Your task to perform on an android device: Open accessibility settings Image 0: 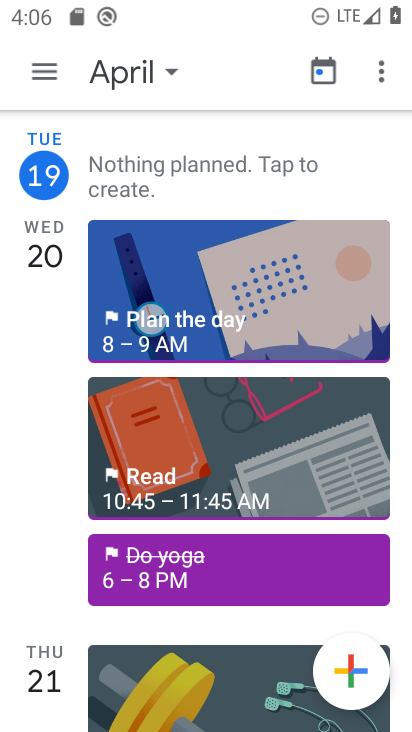
Step 0: press home button
Your task to perform on an android device: Open accessibility settings Image 1: 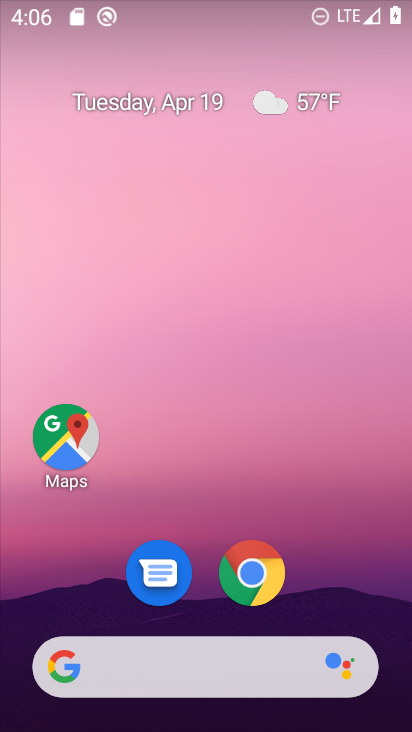
Step 1: drag from (351, 583) to (314, 4)
Your task to perform on an android device: Open accessibility settings Image 2: 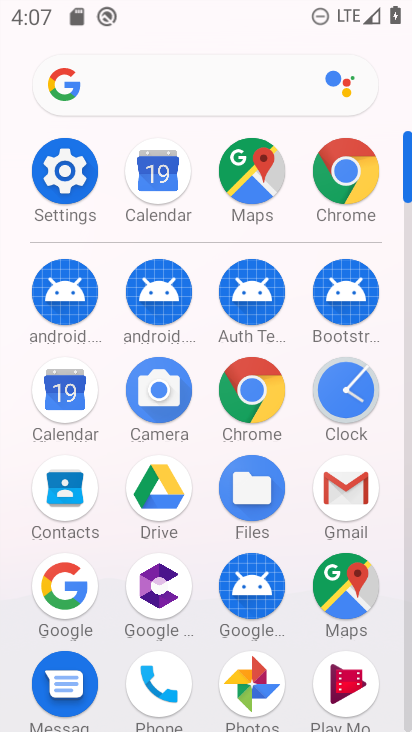
Step 2: click (68, 176)
Your task to perform on an android device: Open accessibility settings Image 3: 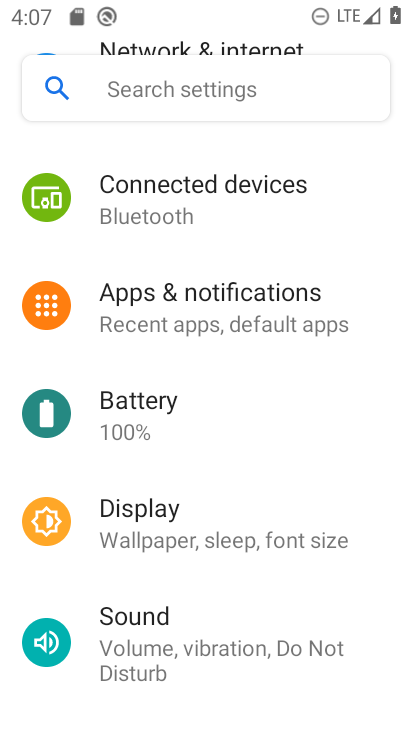
Step 3: drag from (375, 546) to (355, 203)
Your task to perform on an android device: Open accessibility settings Image 4: 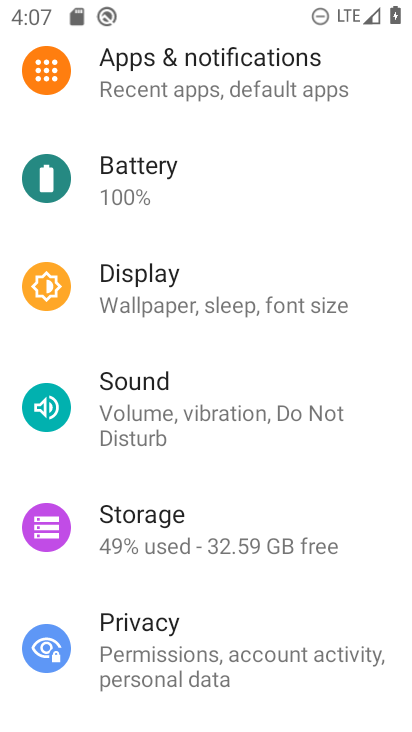
Step 4: drag from (381, 597) to (340, 162)
Your task to perform on an android device: Open accessibility settings Image 5: 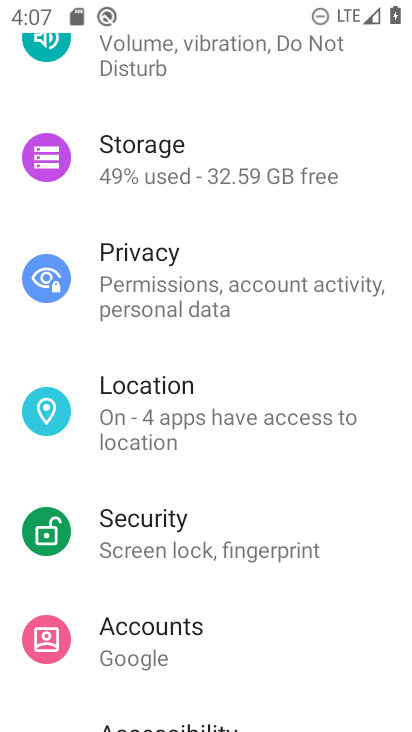
Step 5: drag from (378, 569) to (350, 135)
Your task to perform on an android device: Open accessibility settings Image 6: 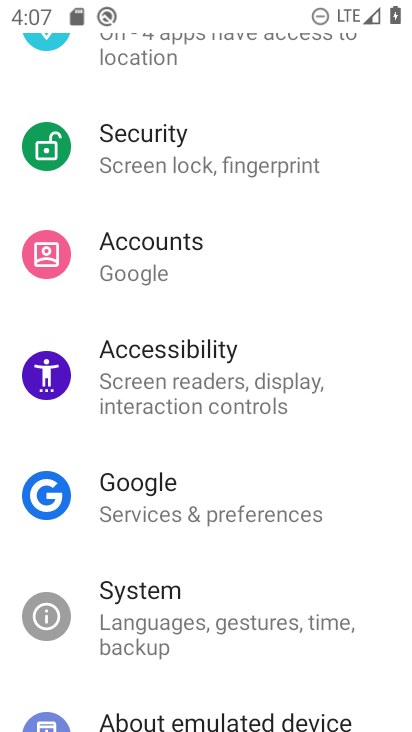
Step 6: click (164, 376)
Your task to perform on an android device: Open accessibility settings Image 7: 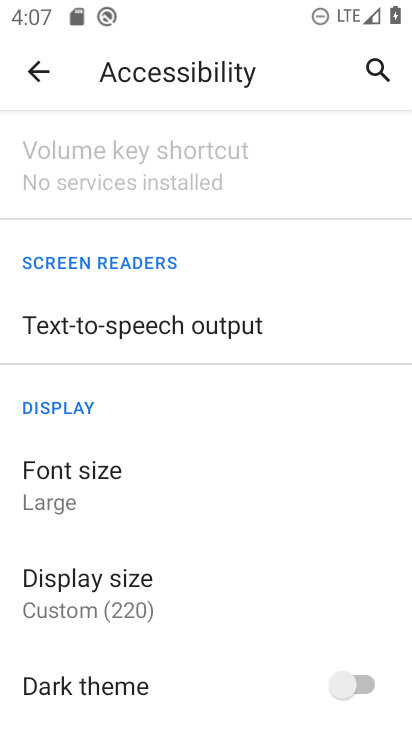
Step 7: task complete